Your task to perform on an android device: turn off location Image 0: 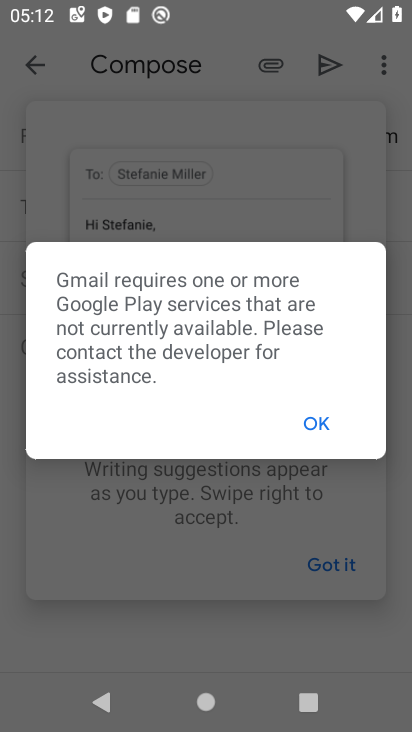
Step 0: press home button
Your task to perform on an android device: turn off location Image 1: 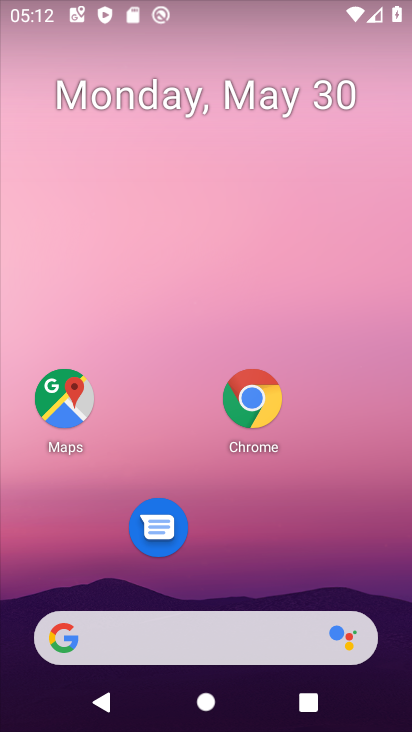
Step 1: drag from (225, 726) to (227, 145)
Your task to perform on an android device: turn off location Image 2: 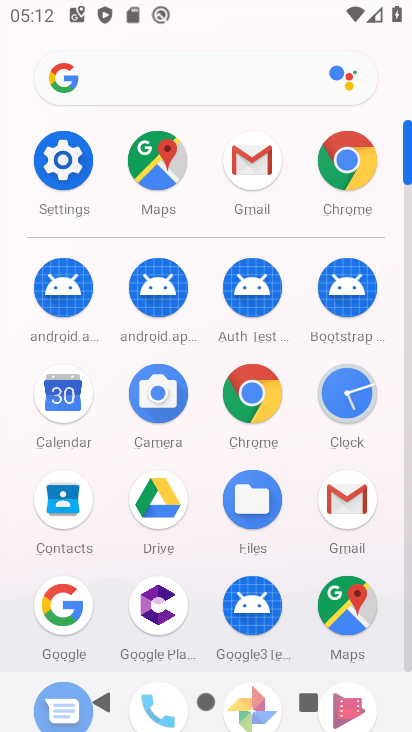
Step 2: click (59, 163)
Your task to perform on an android device: turn off location Image 3: 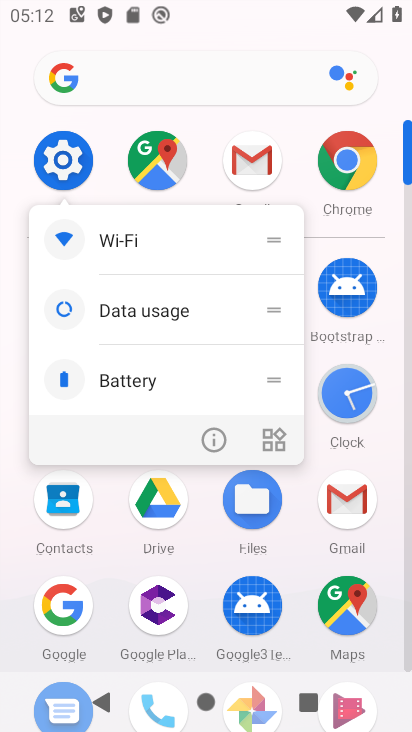
Step 3: click (59, 167)
Your task to perform on an android device: turn off location Image 4: 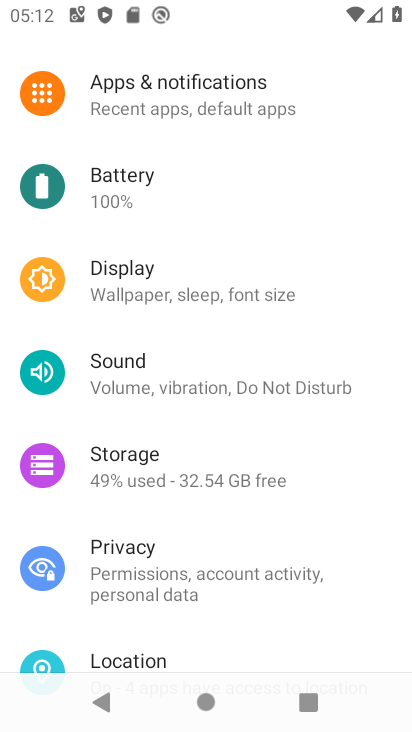
Step 4: click (163, 655)
Your task to perform on an android device: turn off location Image 5: 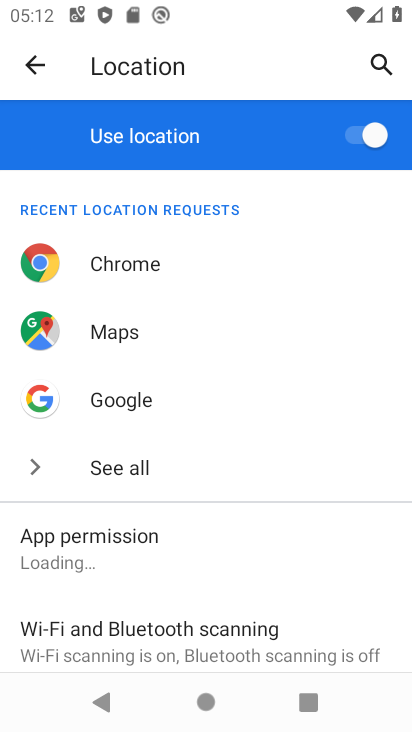
Step 5: click (356, 136)
Your task to perform on an android device: turn off location Image 6: 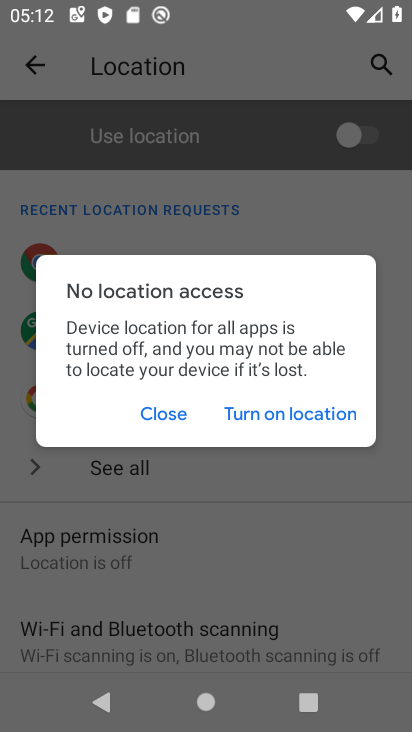
Step 6: task complete